Your task to perform on an android device: change keyboard looks Image 0: 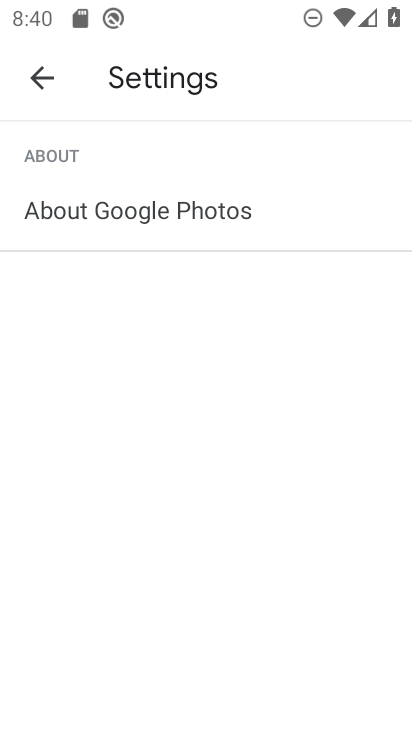
Step 0: press home button
Your task to perform on an android device: change keyboard looks Image 1: 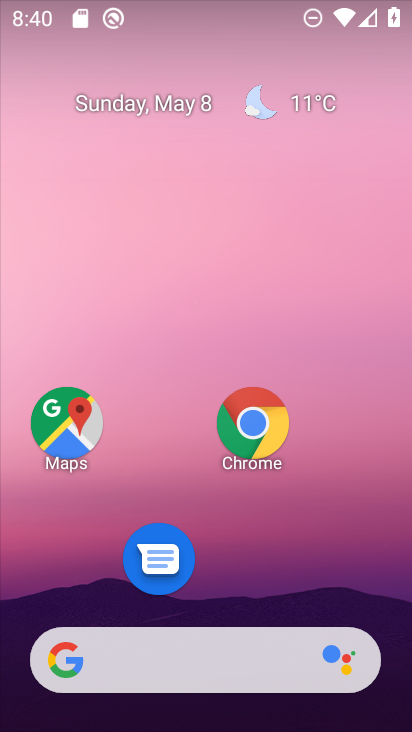
Step 1: drag from (324, 574) to (315, 2)
Your task to perform on an android device: change keyboard looks Image 2: 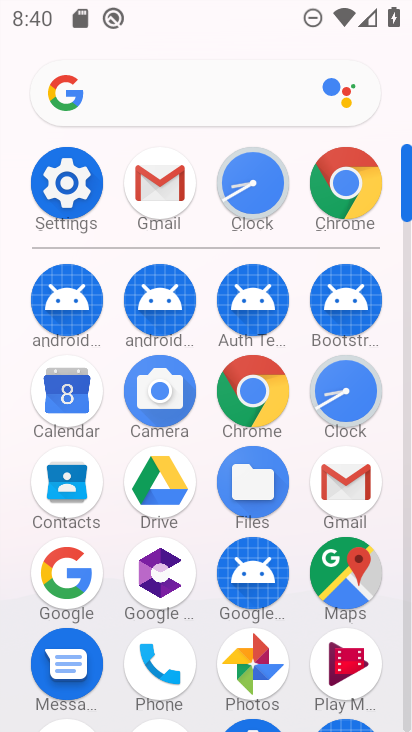
Step 2: click (70, 183)
Your task to perform on an android device: change keyboard looks Image 3: 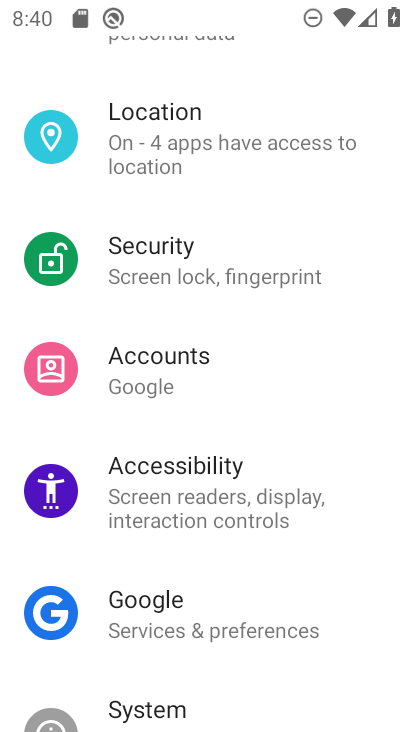
Step 3: click (148, 713)
Your task to perform on an android device: change keyboard looks Image 4: 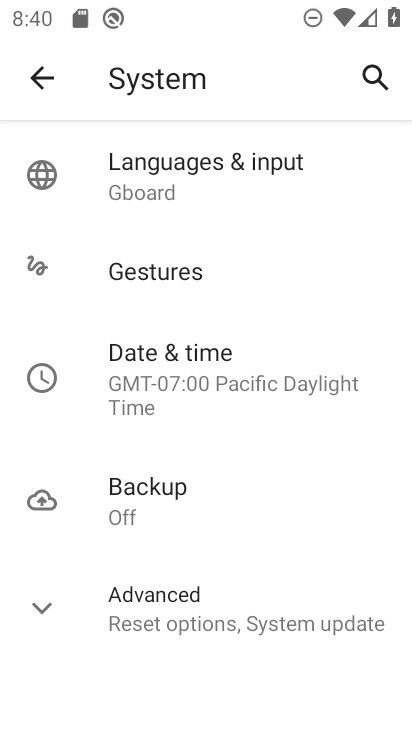
Step 4: click (151, 191)
Your task to perform on an android device: change keyboard looks Image 5: 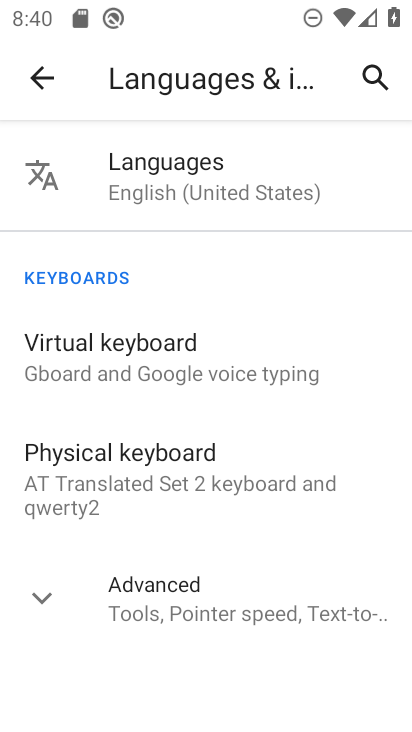
Step 5: click (102, 367)
Your task to perform on an android device: change keyboard looks Image 6: 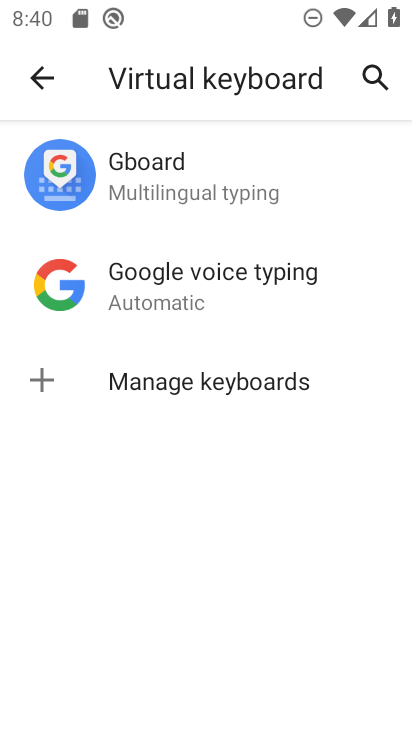
Step 6: click (139, 189)
Your task to perform on an android device: change keyboard looks Image 7: 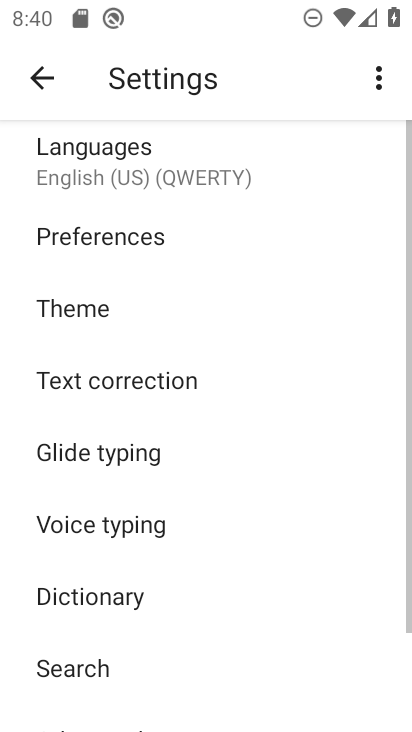
Step 7: click (79, 306)
Your task to perform on an android device: change keyboard looks Image 8: 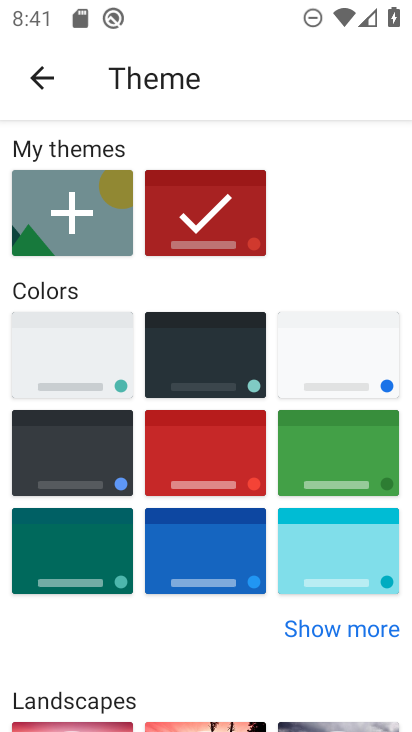
Step 8: click (110, 454)
Your task to perform on an android device: change keyboard looks Image 9: 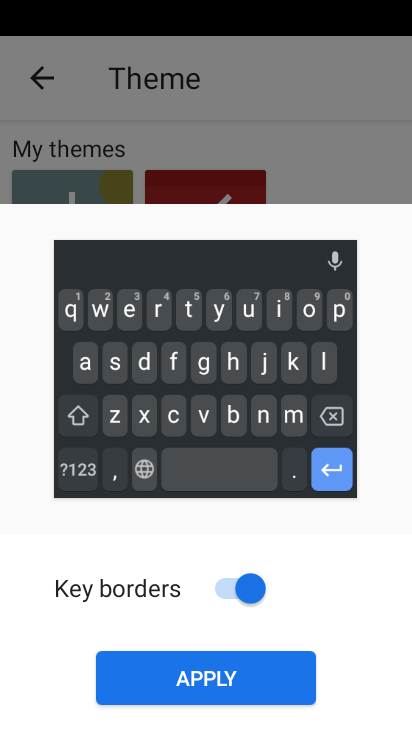
Step 9: click (214, 677)
Your task to perform on an android device: change keyboard looks Image 10: 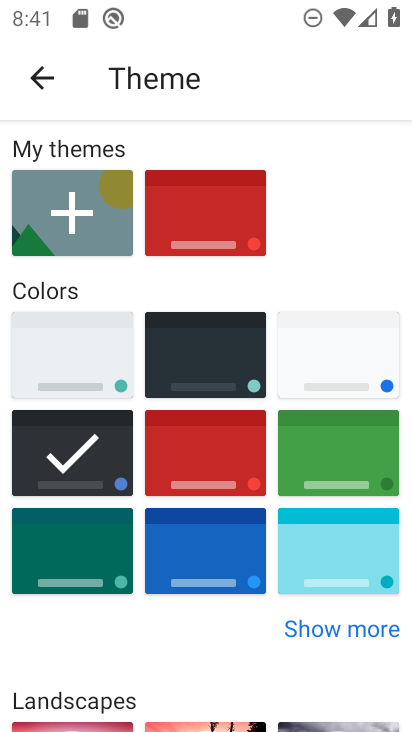
Step 10: task complete